Your task to perform on an android device: Open Yahoo.com Image 0: 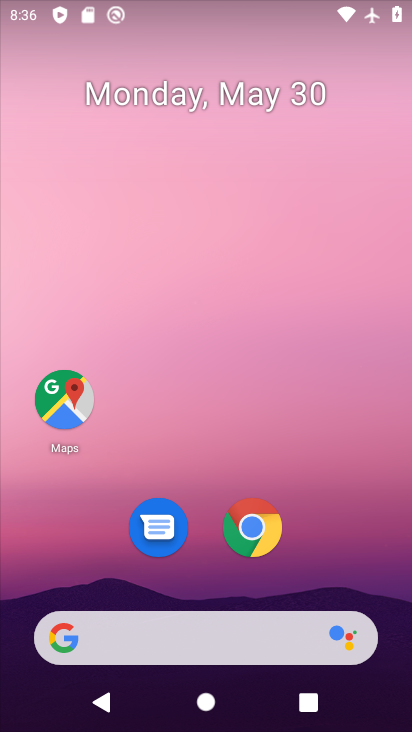
Step 0: click (252, 532)
Your task to perform on an android device: Open Yahoo.com Image 1: 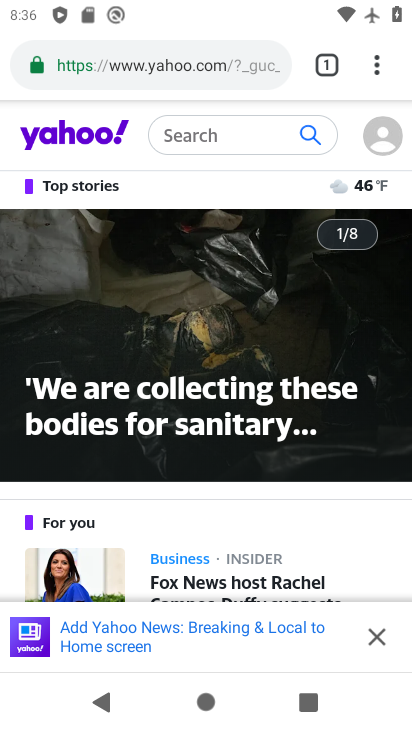
Step 1: task complete